Your task to perform on an android device: Open Wikipedia Image 0: 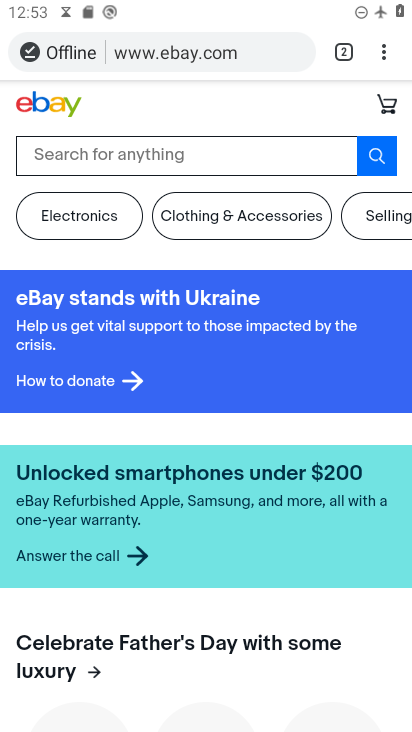
Step 0: click (286, 62)
Your task to perform on an android device: Open Wikipedia Image 1: 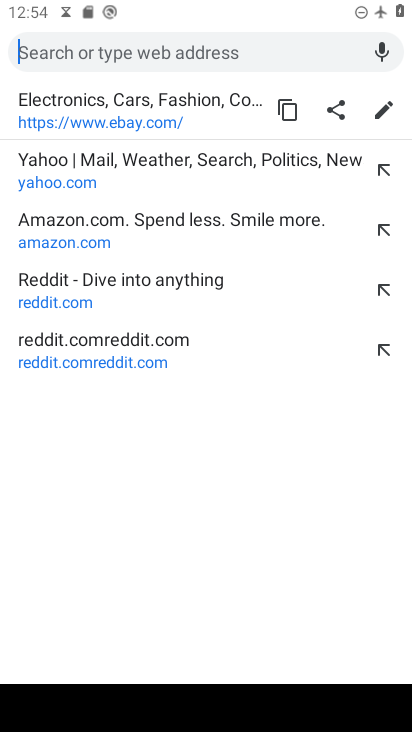
Step 1: type "wikipedia"
Your task to perform on an android device: Open Wikipedia Image 2: 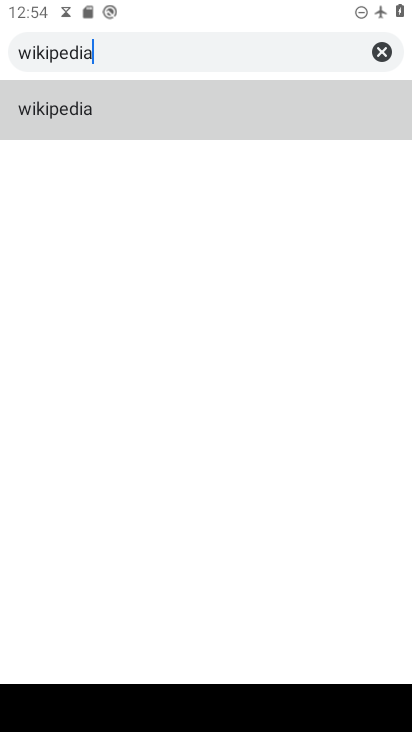
Step 2: click (121, 117)
Your task to perform on an android device: Open Wikipedia Image 3: 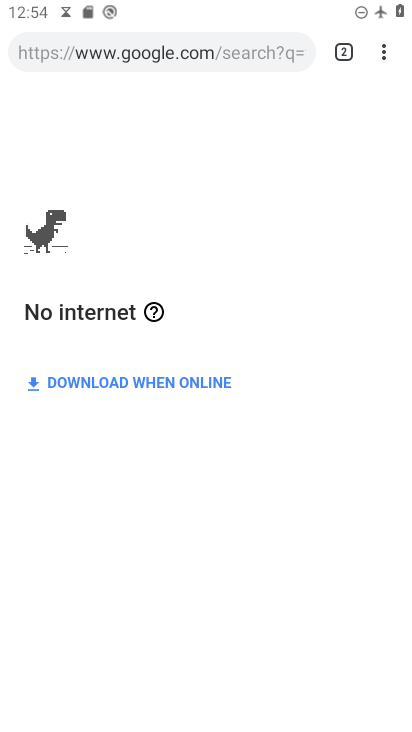
Step 3: click (154, 316)
Your task to perform on an android device: Open Wikipedia Image 4: 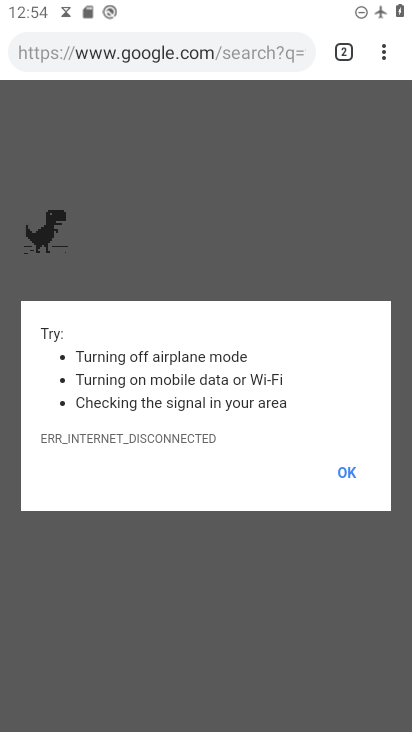
Step 4: click (340, 470)
Your task to perform on an android device: Open Wikipedia Image 5: 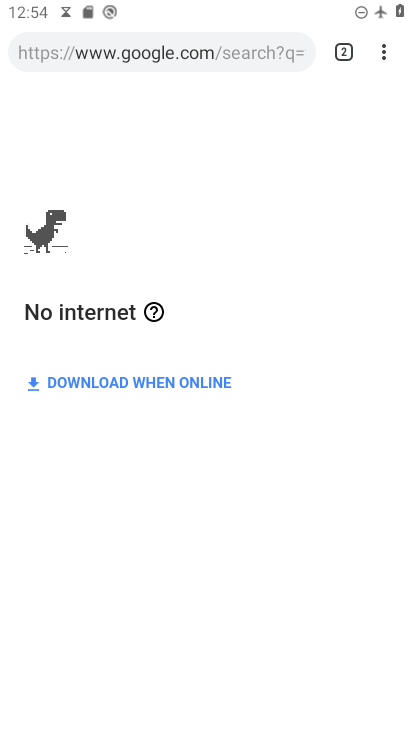
Step 5: click (55, 239)
Your task to perform on an android device: Open Wikipedia Image 6: 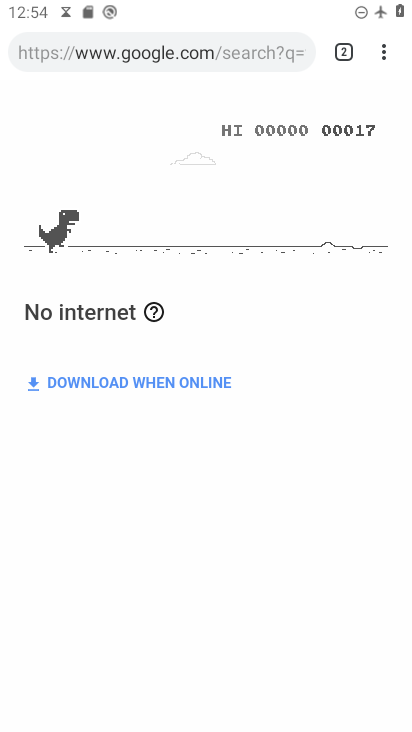
Step 6: click (98, 273)
Your task to perform on an android device: Open Wikipedia Image 7: 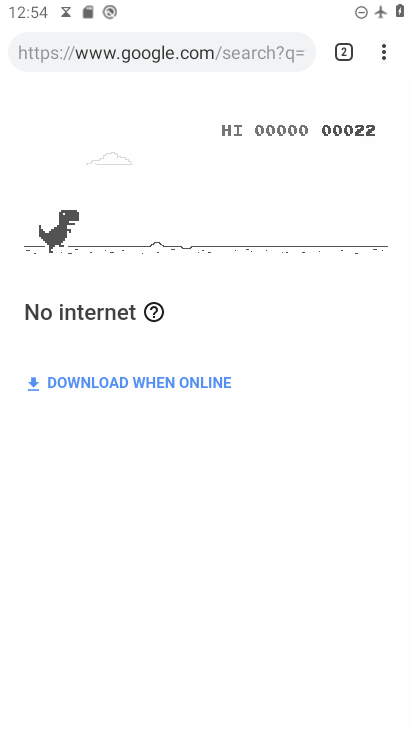
Step 7: click (80, 246)
Your task to perform on an android device: Open Wikipedia Image 8: 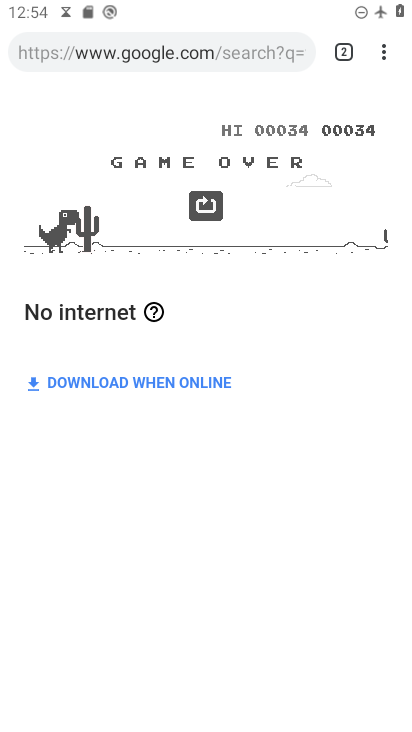
Step 8: click (92, 246)
Your task to perform on an android device: Open Wikipedia Image 9: 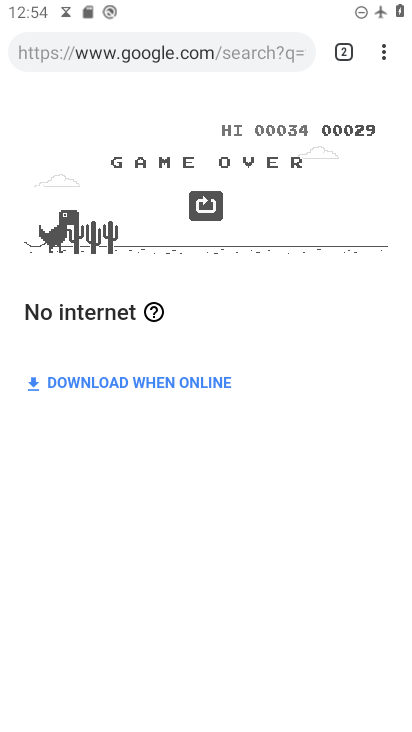
Step 9: click (228, 255)
Your task to perform on an android device: Open Wikipedia Image 10: 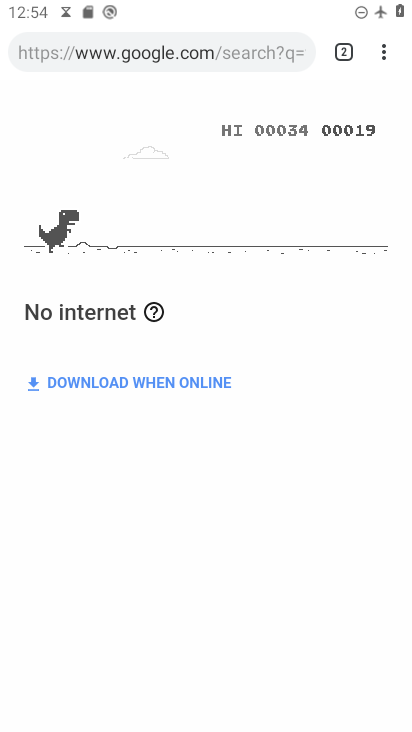
Step 10: click (343, 235)
Your task to perform on an android device: Open Wikipedia Image 11: 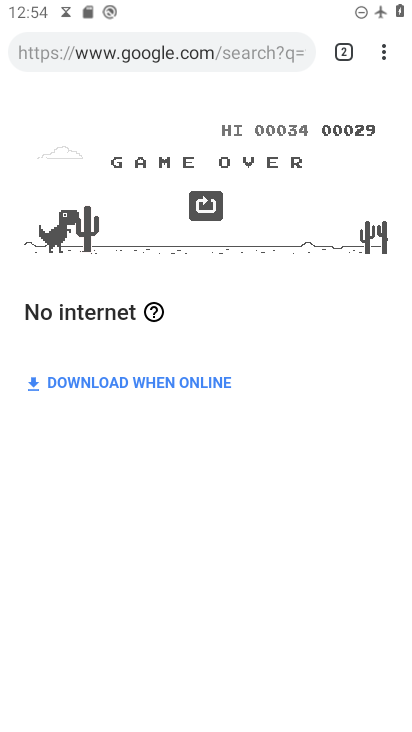
Step 11: click (343, 235)
Your task to perform on an android device: Open Wikipedia Image 12: 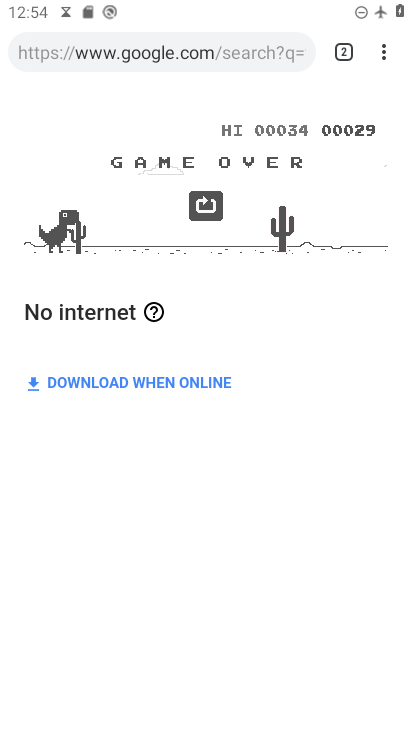
Step 12: click (343, 235)
Your task to perform on an android device: Open Wikipedia Image 13: 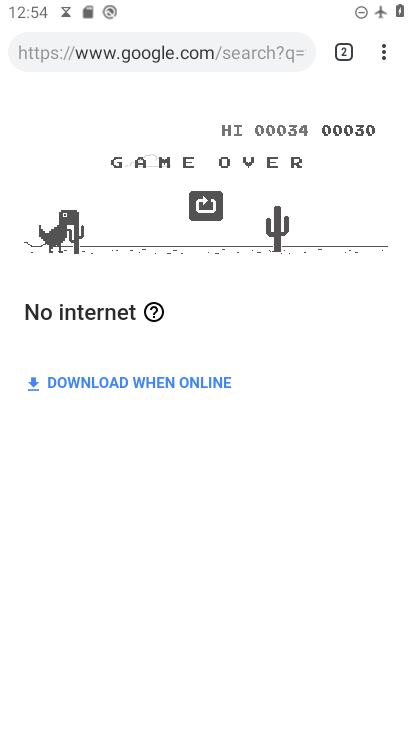
Step 13: click (343, 235)
Your task to perform on an android device: Open Wikipedia Image 14: 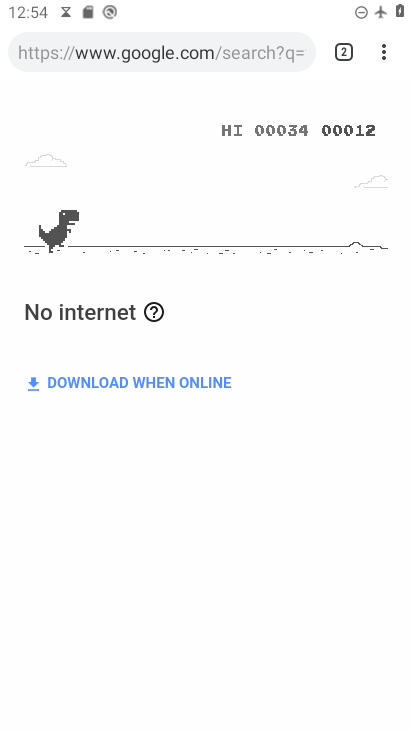
Step 14: drag from (405, 6) to (282, 268)
Your task to perform on an android device: Open Wikipedia Image 15: 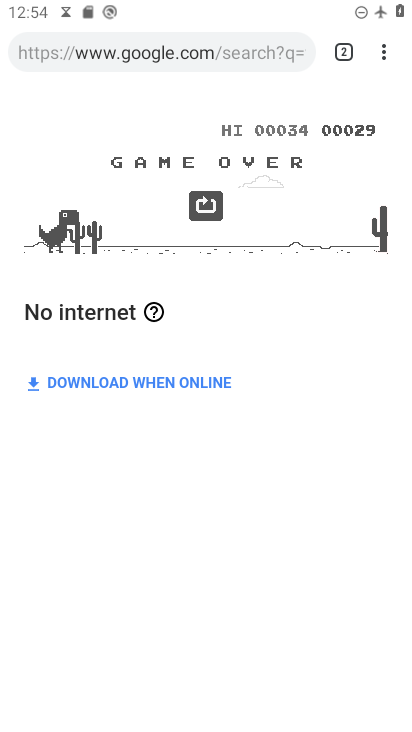
Step 15: click (221, 313)
Your task to perform on an android device: Open Wikipedia Image 16: 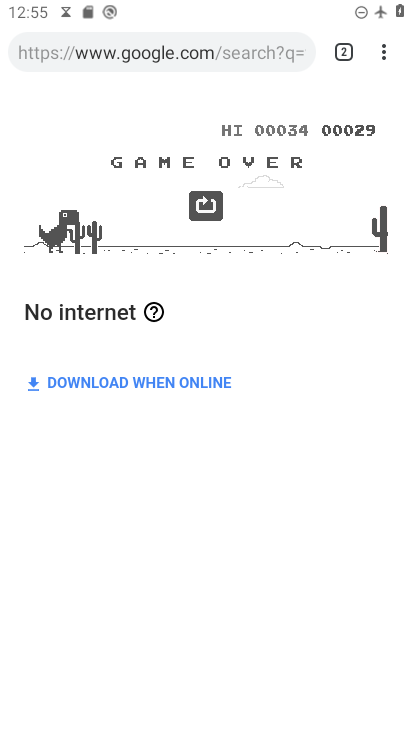
Step 16: task complete